Your task to perform on an android device: Open Yahoo.com Image 0: 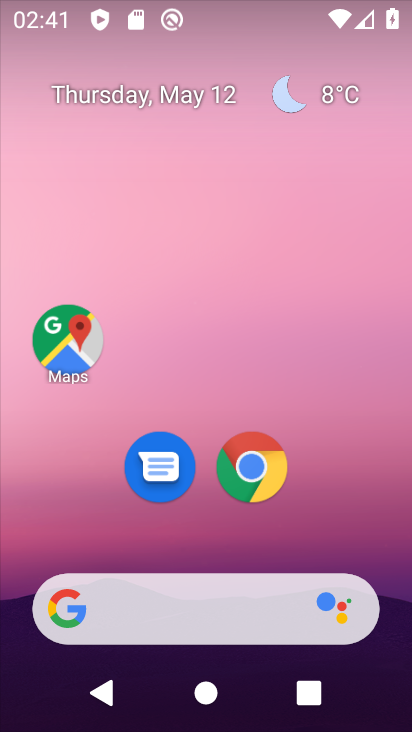
Step 0: click (263, 462)
Your task to perform on an android device: Open Yahoo.com Image 1: 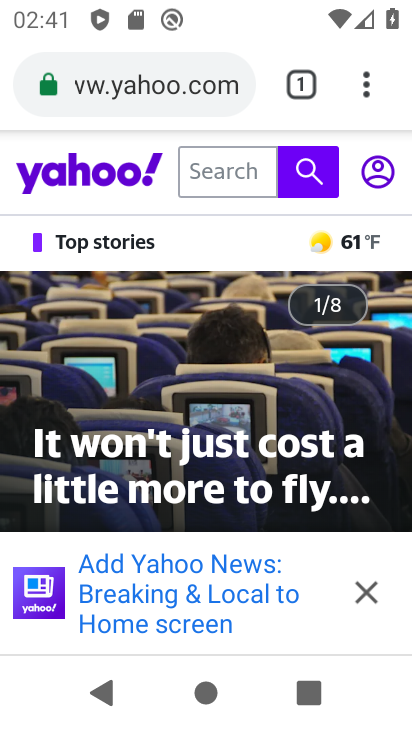
Step 1: task complete